Your task to perform on an android device: Set the phone to "Do not disturb". Image 0: 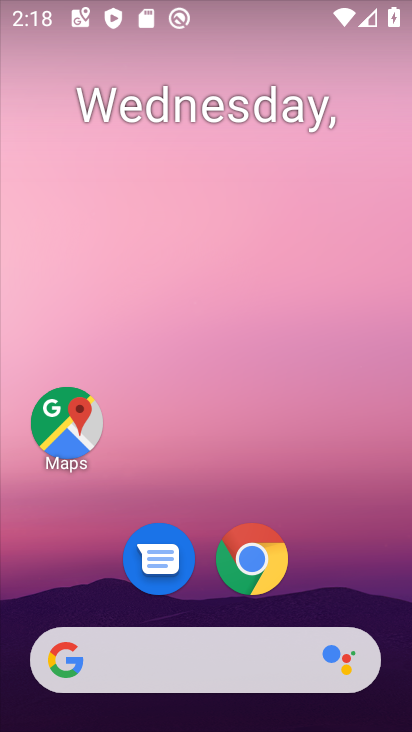
Step 0: click (335, 541)
Your task to perform on an android device: Set the phone to "Do not disturb". Image 1: 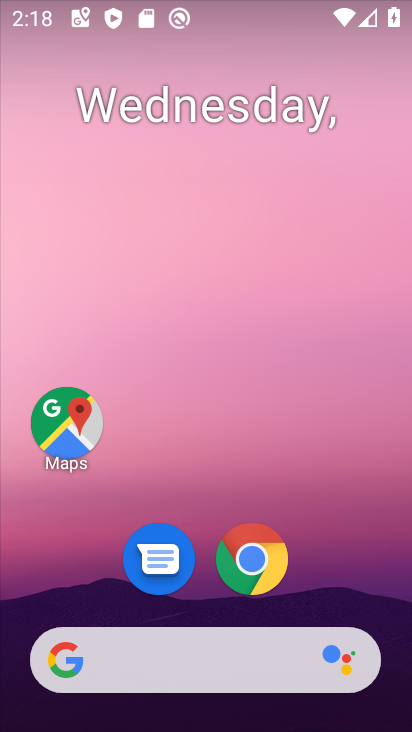
Step 1: drag from (328, 7) to (322, 486)
Your task to perform on an android device: Set the phone to "Do not disturb". Image 2: 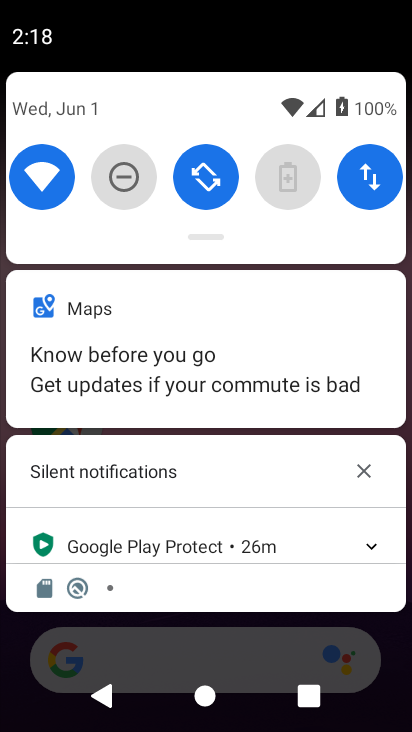
Step 2: drag from (198, 235) to (204, 487)
Your task to perform on an android device: Set the phone to "Do not disturb". Image 3: 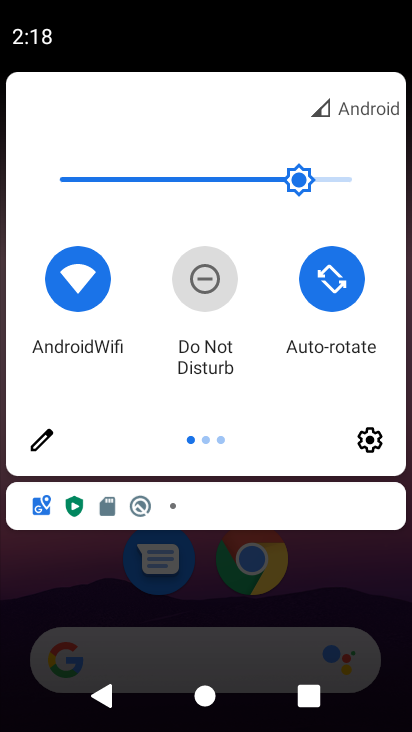
Step 3: drag from (370, 322) to (38, 374)
Your task to perform on an android device: Set the phone to "Do not disturb". Image 4: 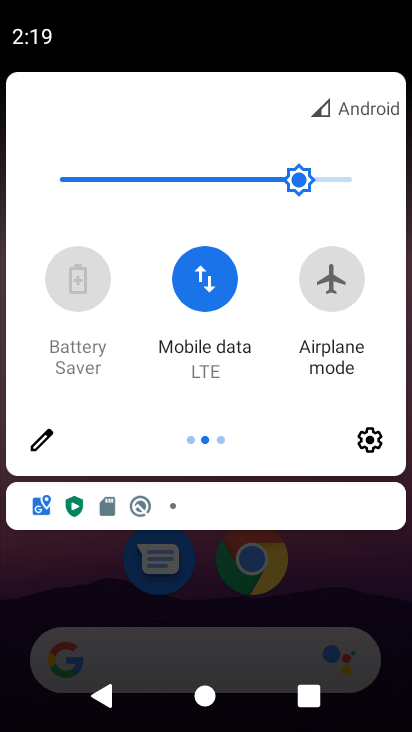
Step 4: drag from (120, 325) to (393, 377)
Your task to perform on an android device: Set the phone to "Do not disturb". Image 5: 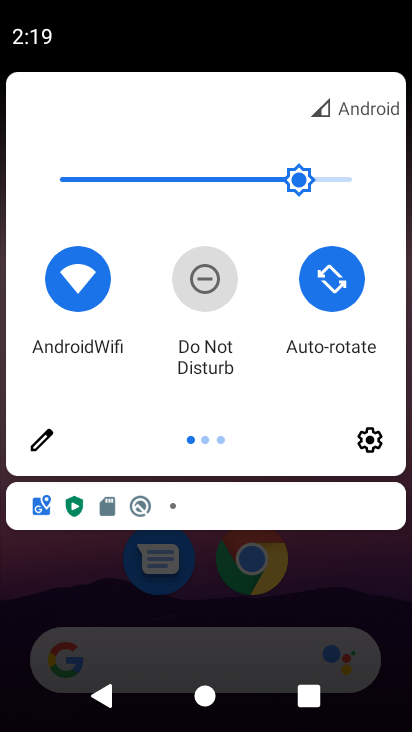
Step 5: click (197, 288)
Your task to perform on an android device: Set the phone to "Do not disturb". Image 6: 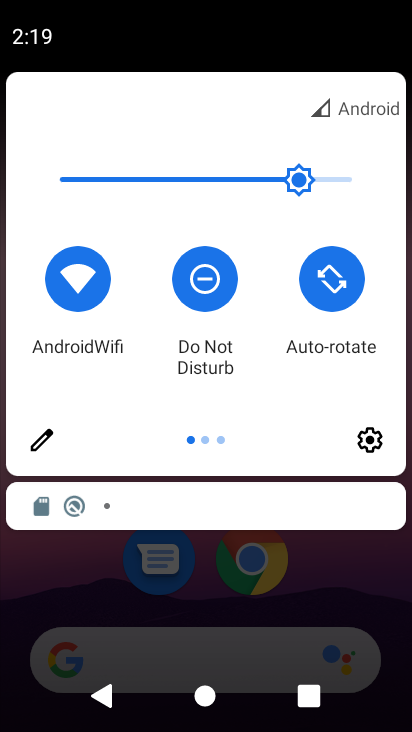
Step 6: task complete